Your task to perform on an android device: turn on improve location accuracy Image 0: 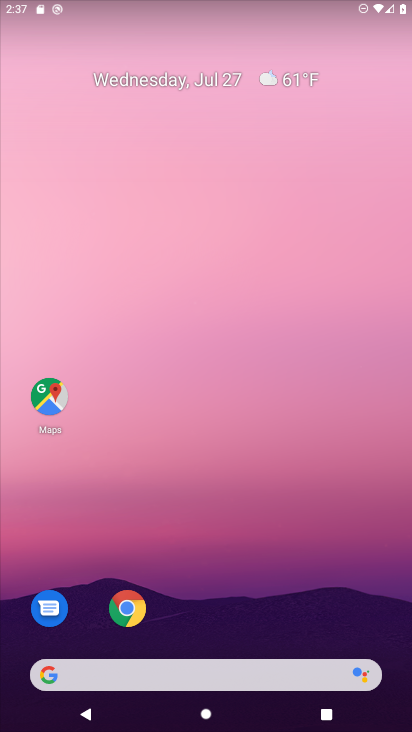
Step 0: drag from (223, 622) to (175, 97)
Your task to perform on an android device: turn on improve location accuracy Image 1: 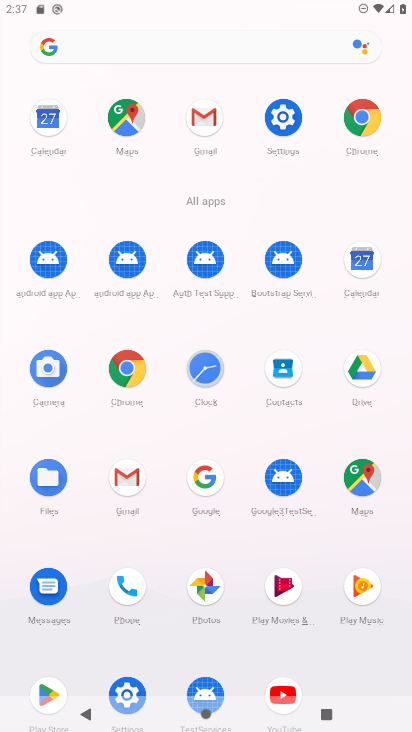
Step 1: click (282, 119)
Your task to perform on an android device: turn on improve location accuracy Image 2: 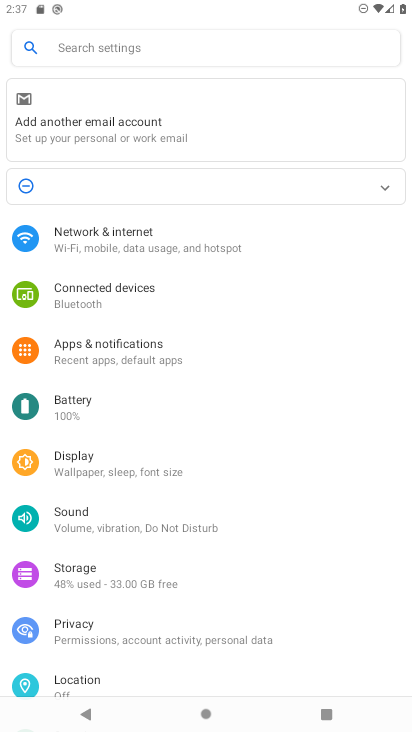
Step 2: click (66, 685)
Your task to perform on an android device: turn on improve location accuracy Image 3: 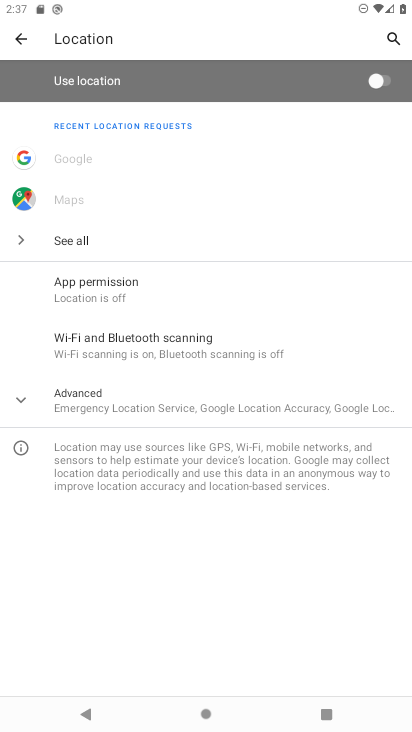
Step 3: click (21, 402)
Your task to perform on an android device: turn on improve location accuracy Image 4: 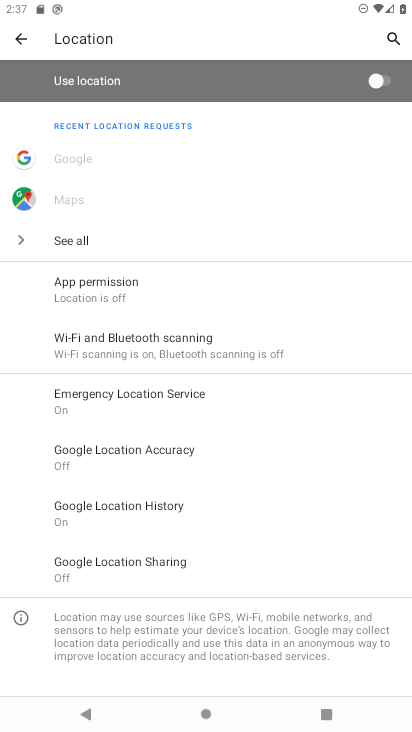
Step 4: click (138, 446)
Your task to perform on an android device: turn on improve location accuracy Image 5: 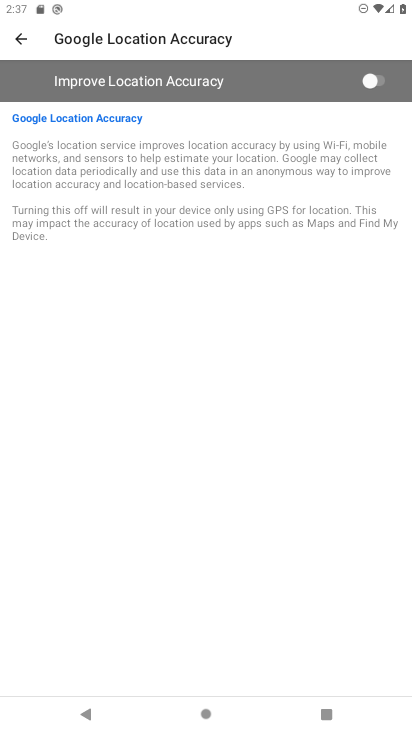
Step 5: click (373, 81)
Your task to perform on an android device: turn on improve location accuracy Image 6: 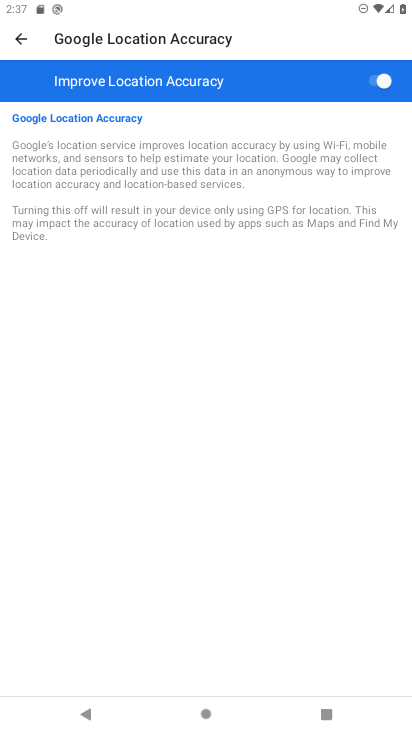
Step 6: task complete